Your task to perform on an android device: check storage Image 0: 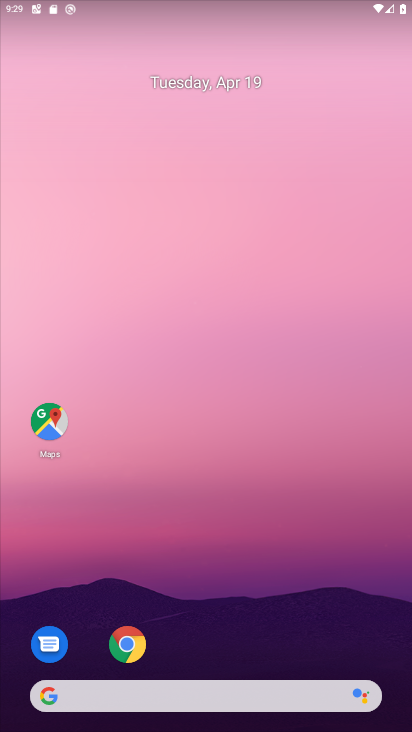
Step 0: drag from (226, 504) to (153, 89)
Your task to perform on an android device: check storage Image 1: 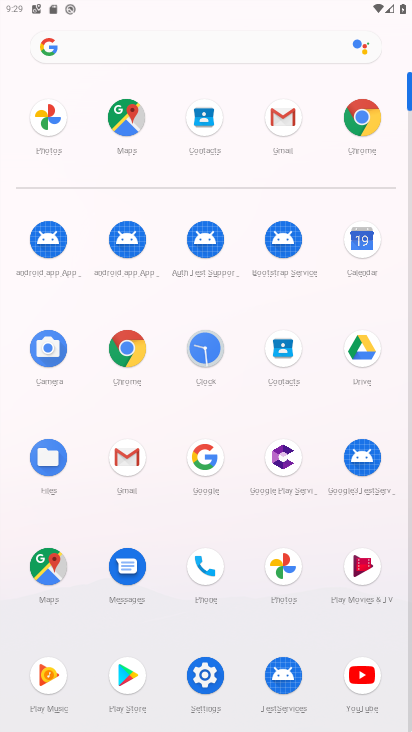
Step 1: click (199, 671)
Your task to perform on an android device: check storage Image 2: 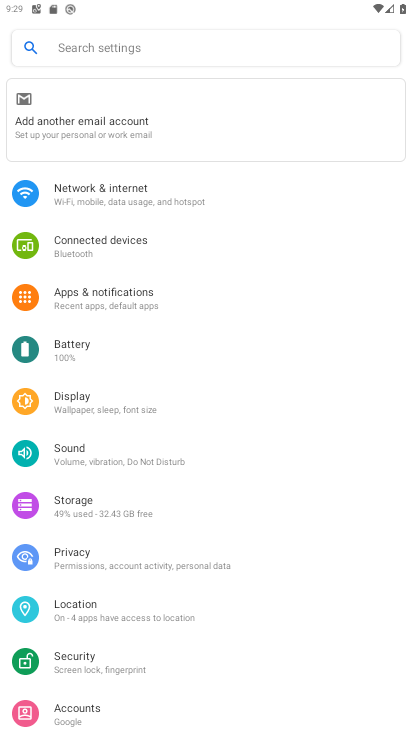
Step 2: click (127, 511)
Your task to perform on an android device: check storage Image 3: 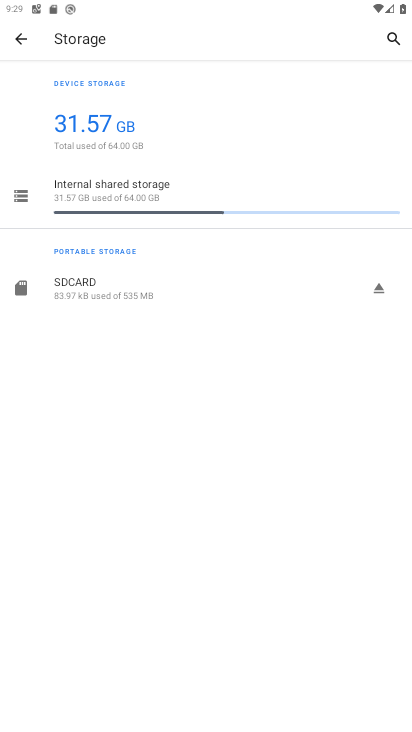
Step 3: task complete